Your task to perform on an android device: see tabs open on other devices in the chrome app Image 0: 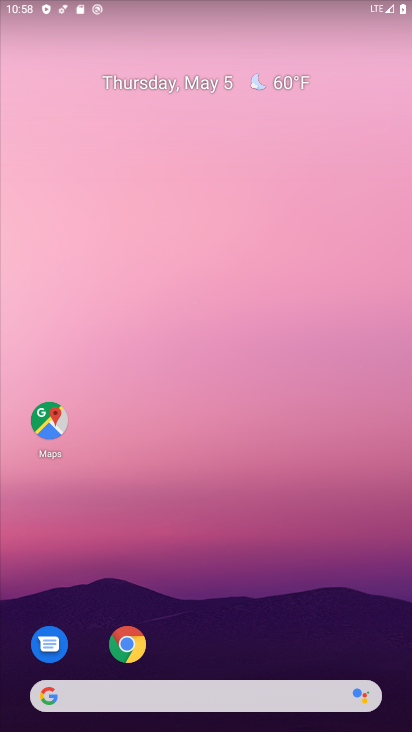
Step 0: drag from (372, 612) to (336, 100)
Your task to perform on an android device: see tabs open on other devices in the chrome app Image 1: 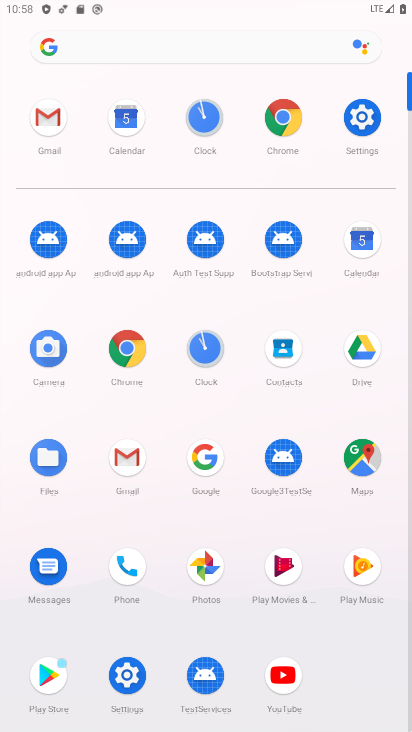
Step 1: click (127, 365)
Your task to perform on an android device: see tabs open on other devices in the chrome app Image 2: 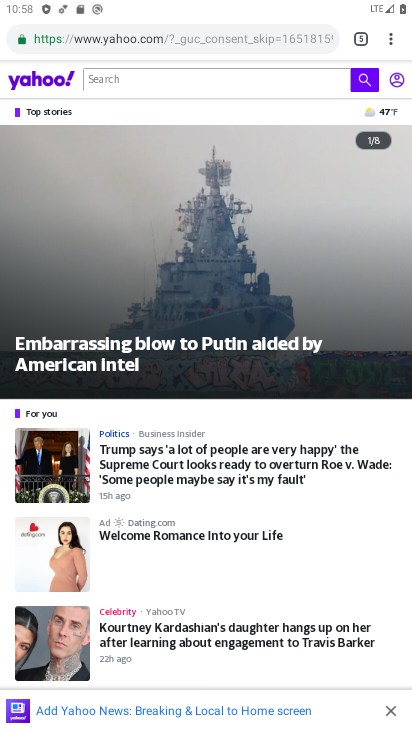
Step 2: click (361, 40)
Your task to perform on an android device: see tabs open on other devices in the chrome app Image 3: 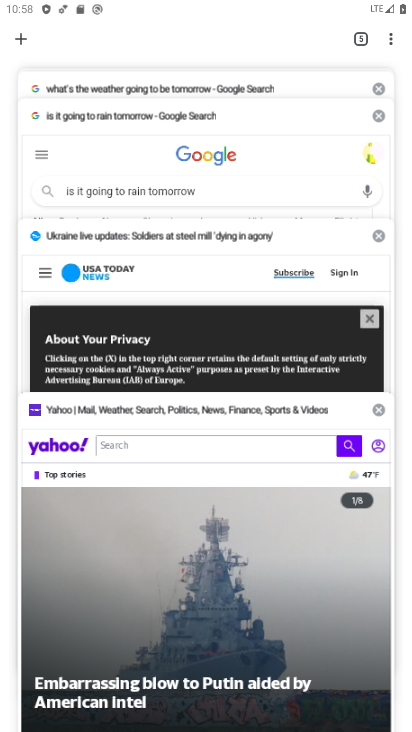
Step 3: task complete